Your task to perform on an android device: turn on data saver in the chrome app Image 0: 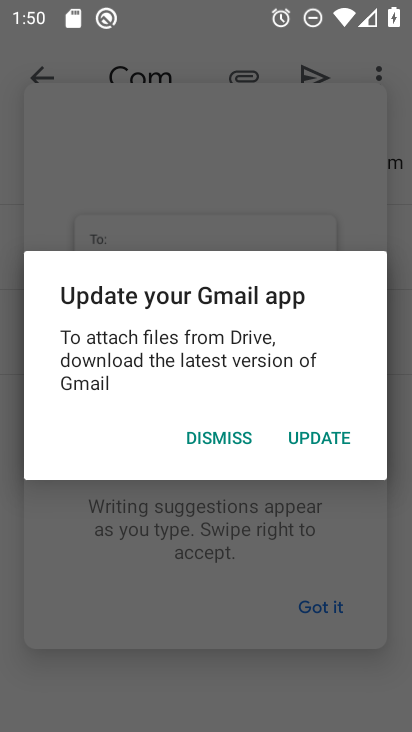
Step 0: press home button
Your task to perform on an android device: turn on data saver in the chrome app Image 1: 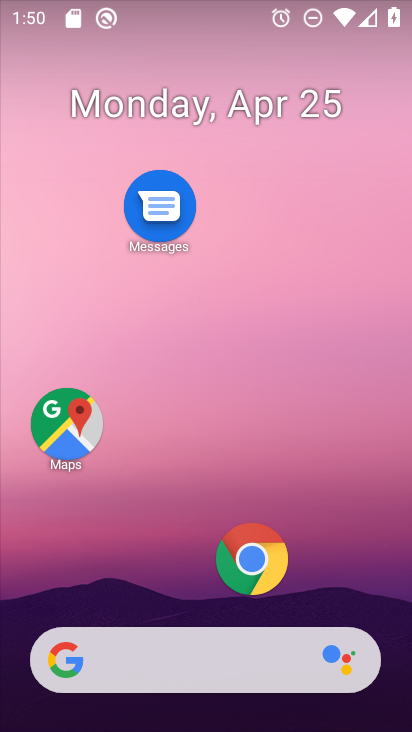
Step 1: click (256, 559)
Your task to perform on an android device: turn on data saver in the chrome app Image 2: 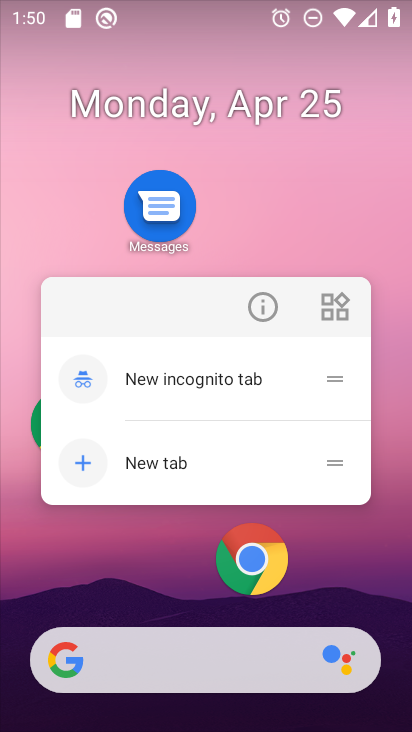
Step 2: click (256, 559)
Your task to perform on an android device: turn on data saver in the chrome app Image 3: 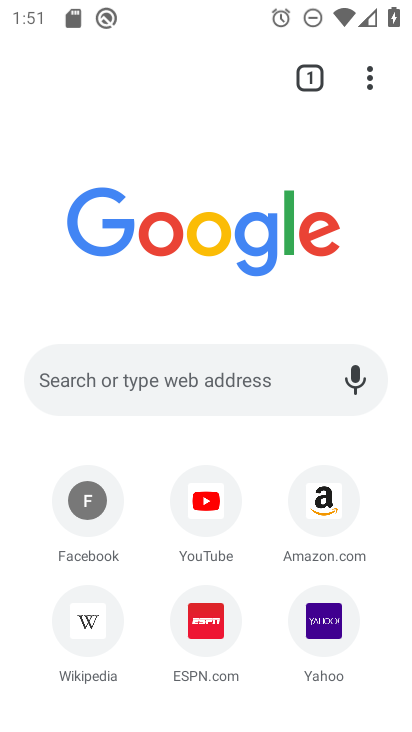
Step 3: click (363, 82)
Your task to perform on an android device: turn on data saver in the chrome app Image 4: 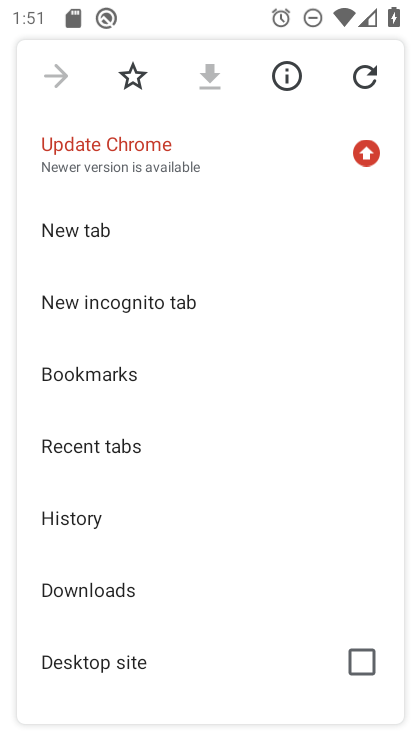
Step 4: drag from (152, 546) to (217, 167)
Your task to perform on an android device: turn on data saver in the chrome app Image 5: 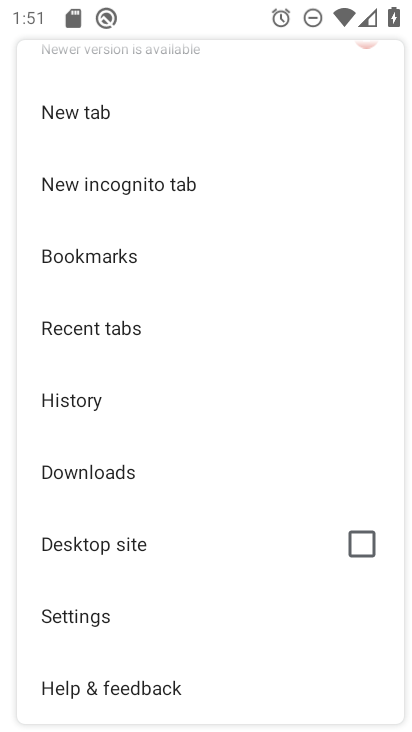
Step 5: click (117, 617)
Your task to perform on an android device: turn on data saver in the chrome app Image 6: 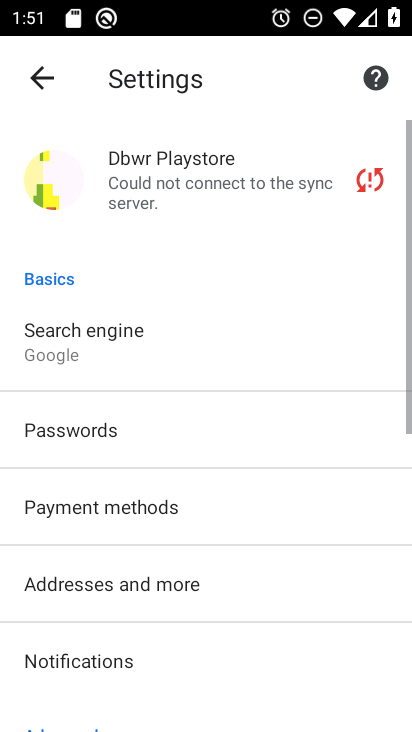
Step 6: drag from (272, 516) to (267, 384)
Your task to perform on an android device: turn on data saver in the chrome app Image 7: 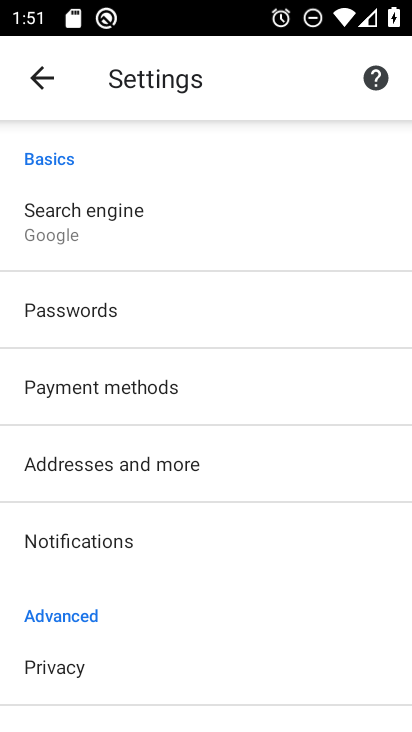
Step 7: drag from (235, 593) to (214, 451)
Your task to perform on an android device: turn on data saver in the chrome app Image 8: 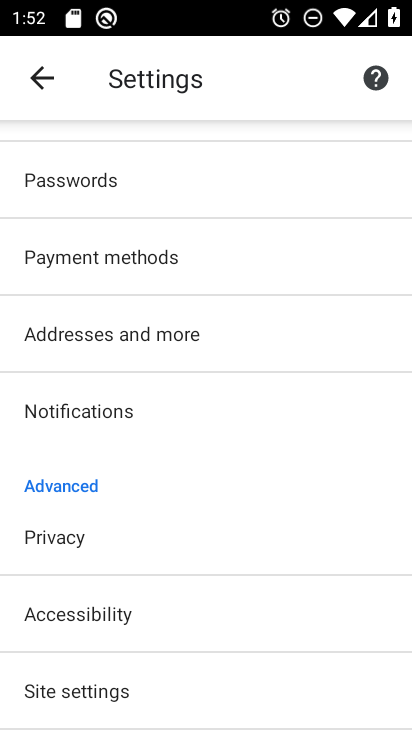
Step 8: drag from (230, 605) to (247, 410)
Your task to perform on an android device: turn on data saver in the chrome app Image 9: 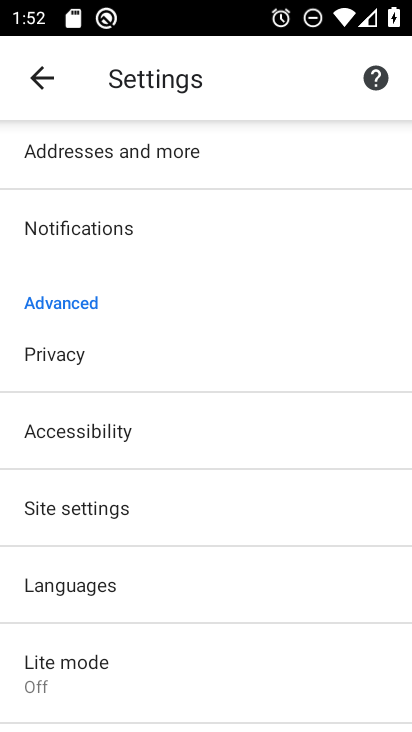
Step 9: click (125, 675)
Your task to perform on an android device: turn on data saver in the chrome app Image 10: 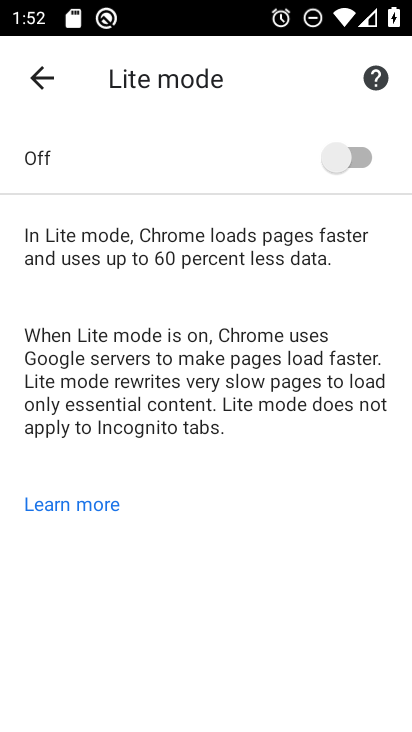
Step 10: click (336, 151)
Your task to perform on an android device: turn on data saver in the chrome app Image 11: 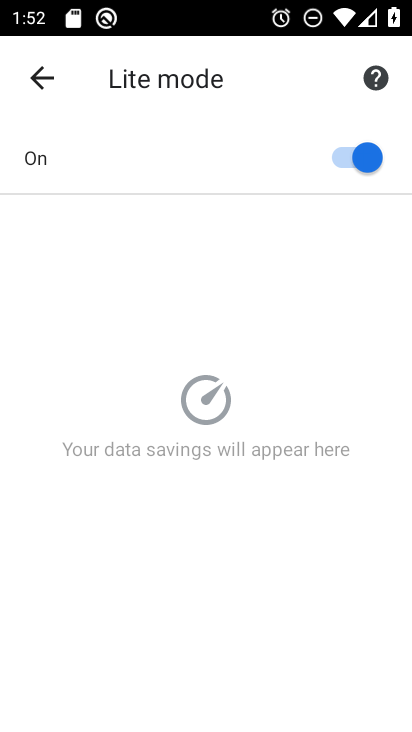
Step 11: task complete